Your task to perform on an android device: all mails in gmail Image 0: 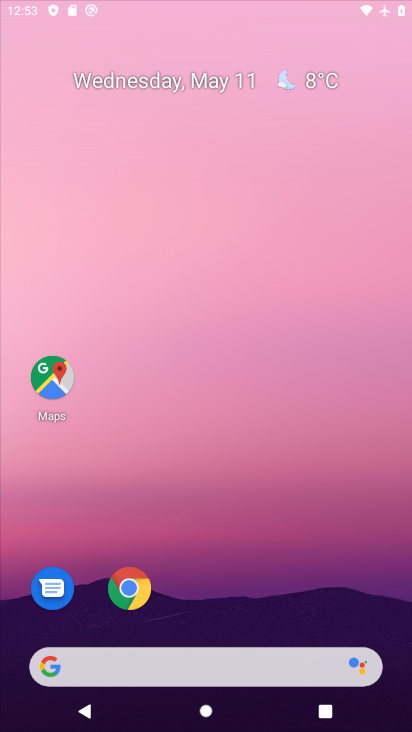
Step 0: drag from (203, 568) to (239, 162)
Your task to perform on an android device: all mails in gmail Image 1: 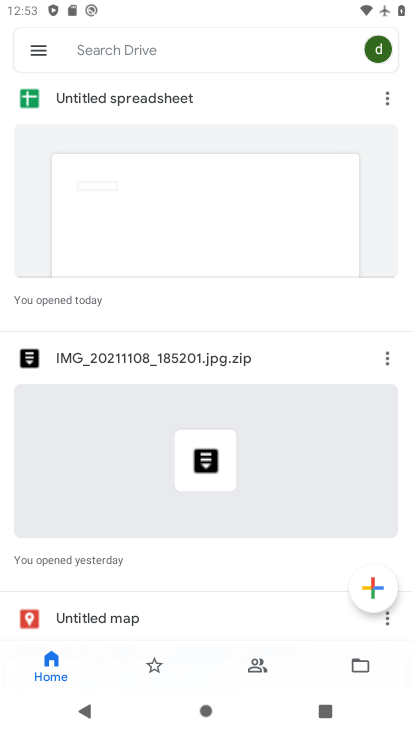
Step 1: press home button
Your task to perform on an android device: all mails in gmail Image 2: 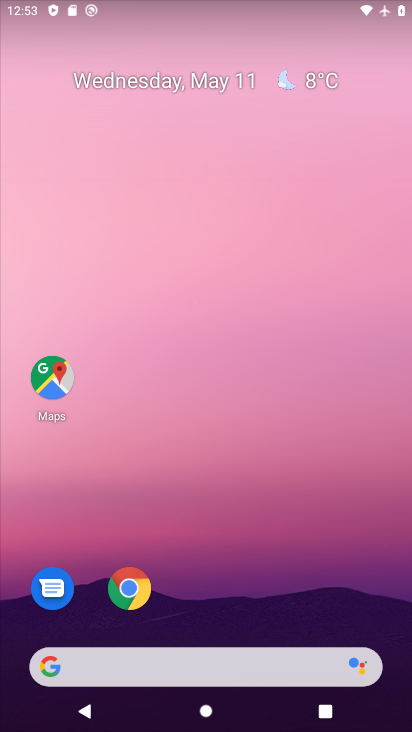
Step 2: drag from (274, 552) to (272, 95)
Your task to perform on an android device: all mails in gmail Image 3: 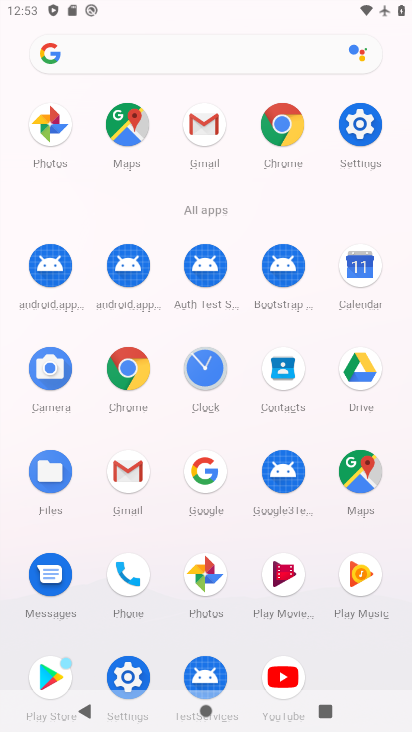
Step 3: click (132, 486)
Your task to perform on an android device: all mails in gmail Image 4: 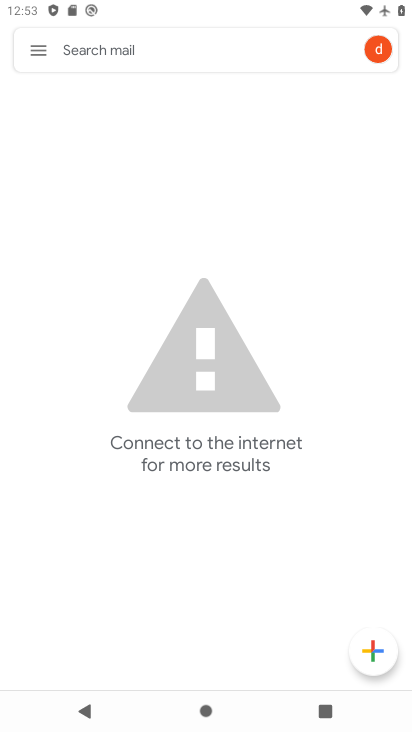
Step 4: click (40, 59)
Your task to perform on an android device: all mails in gmail Image 5: 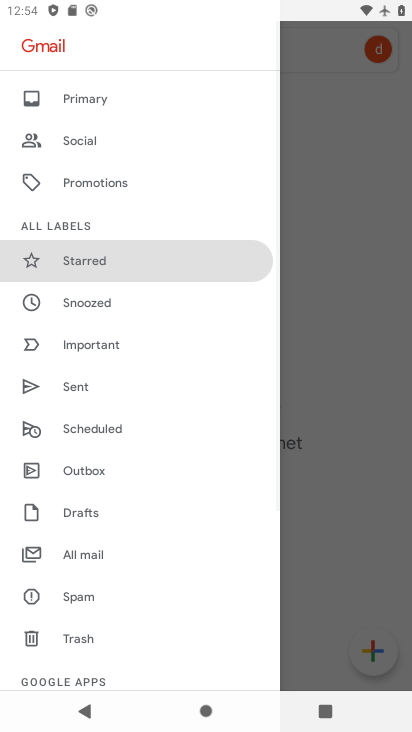
Step 5: click (109, 556)
Your task to perform on an android device: all mails in gmail Image 6: 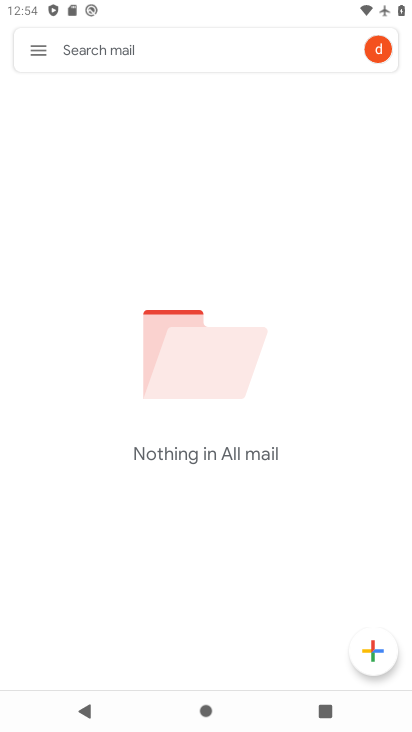
Step 6: task complete